Your task to perform on an android device: Open settings Image 0: 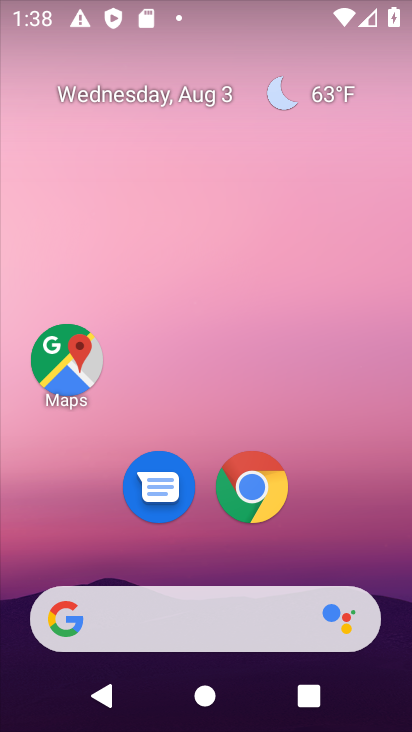
Step 0: drag from (356, 528) to (363, 120)
Your task to perform on an android device: Open settings Image 1: 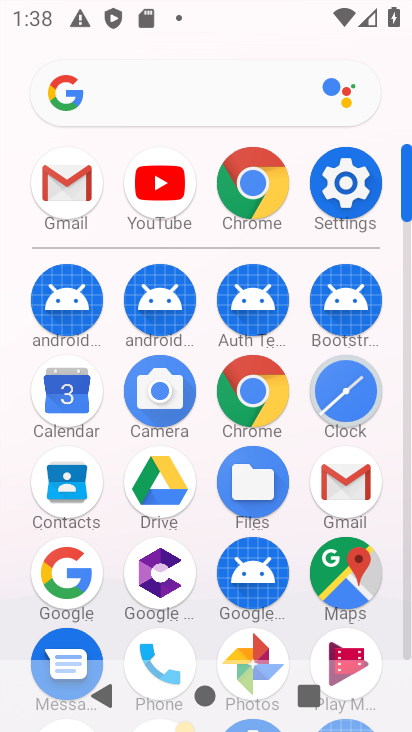
Step 1: click (357, 165)
Your task to perform on an android device: Open settings Image 2: 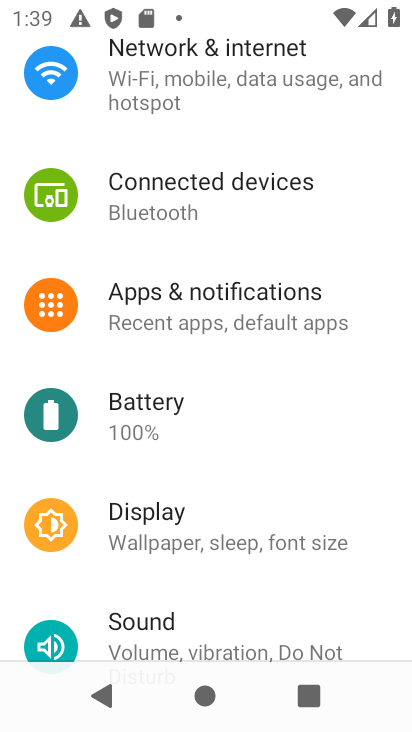
Step 2: task complete